Your task to perform on an android device: clear all cookies in the chrome app Image 0: 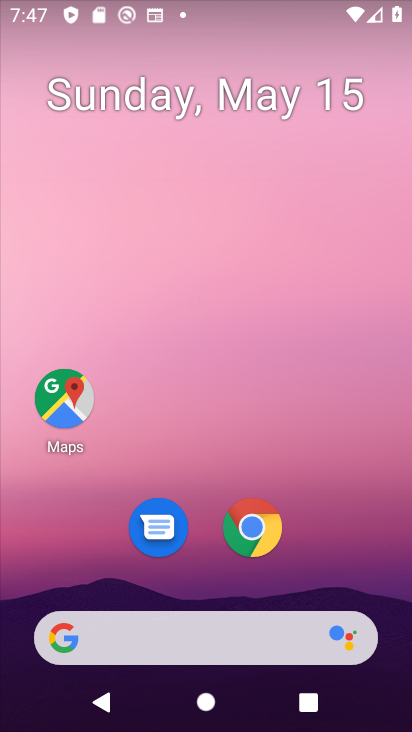
Step 0: press home button
Your task to perform on an android device: clear all cookies in the chrome app Image 1: 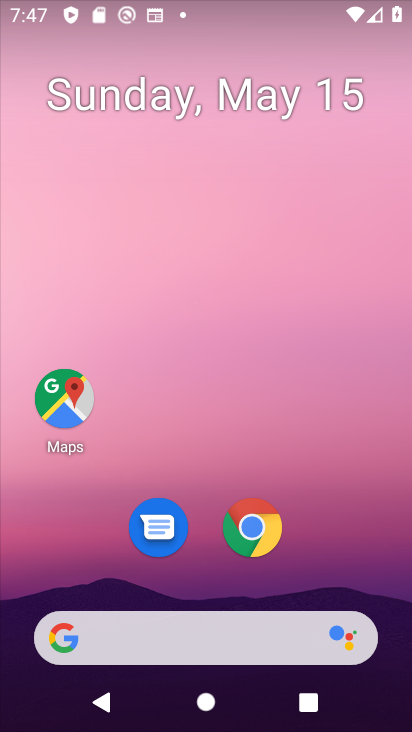
Step 1: click (247, 535)
Your task to perform on an android device: clear all cookies in the chrome app Image 2: 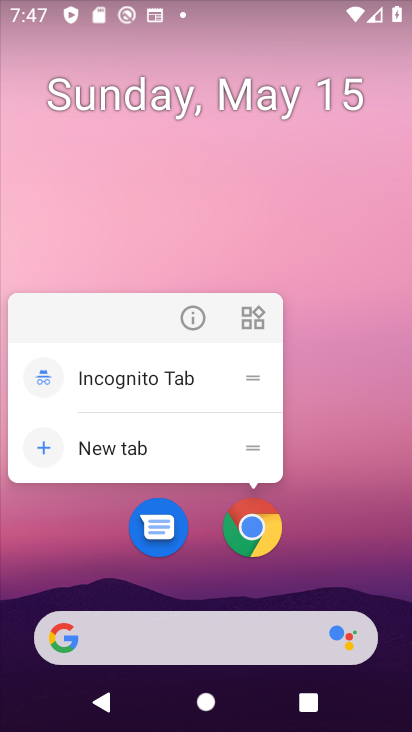
Step 2: click (254, 527)
Your task to perform on an android device: clear all cookies in the chrome app Image 3: 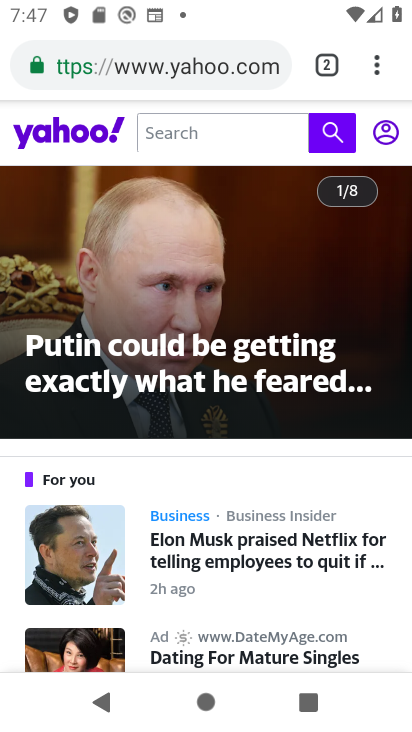
Step 3: drag from (375, 68) to (226, 580)
Your task to perform on an android device: clear all cookies in the chrome app Image 4: 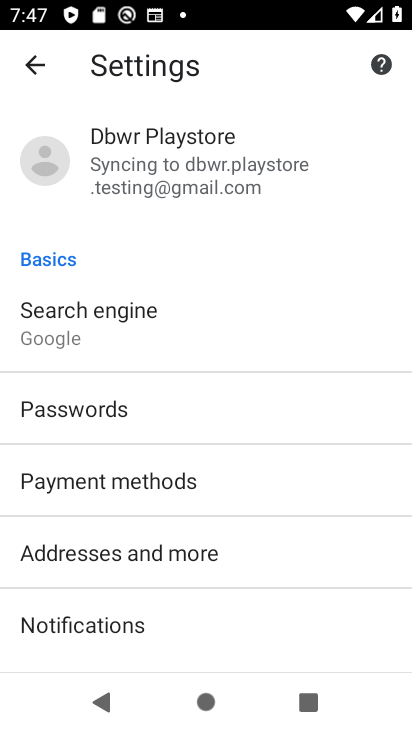
Step 4: drag from (226, 578) to (338, 105)
Your task to perform on an android device: clear all cookies in the chrome app Image 5: 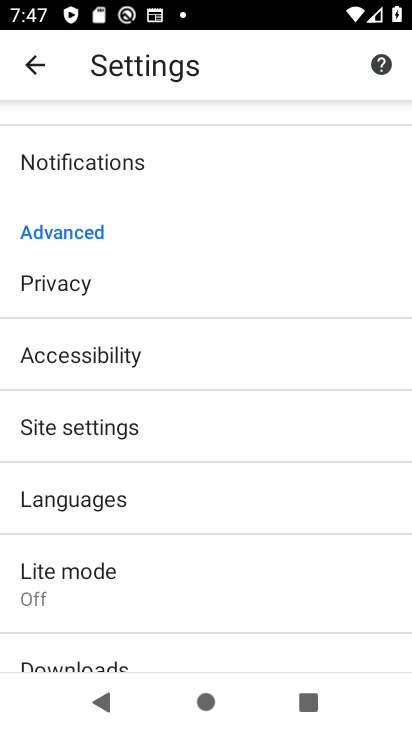
Step 5: click (52, 285)
Your task to perform on an android device: clear all cookies in the chrome app Image 6: 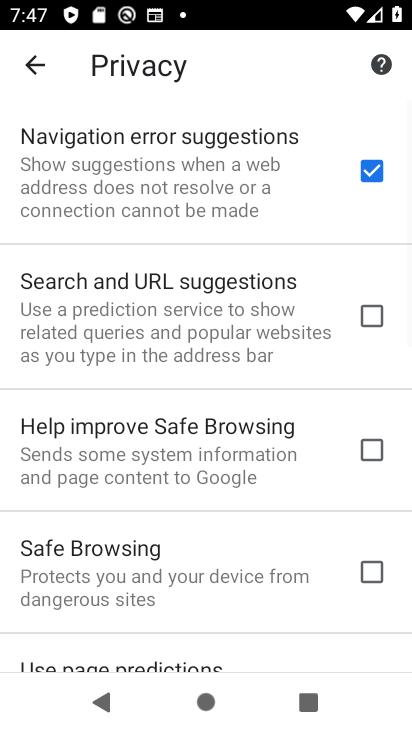
Step 6: drag from (130, 618) to (318, 90)
Your task to perform on an android device: clear all cookies in the chrome app Image 7: 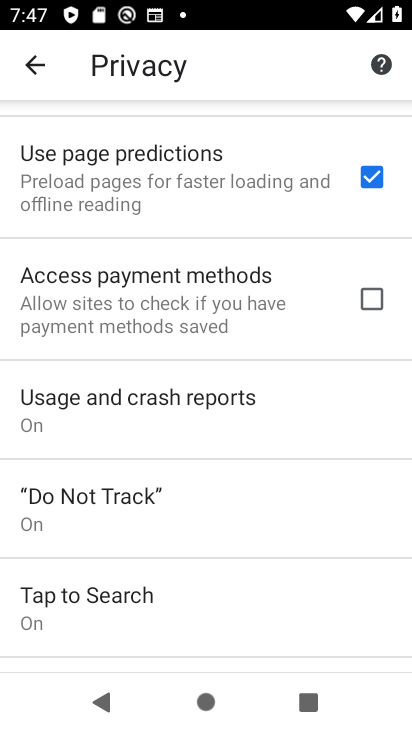
Step 7: drag from (198, 611) to (340, 84)
Your task to perform on an android device: clear all cookies in the chrome app Image 8: 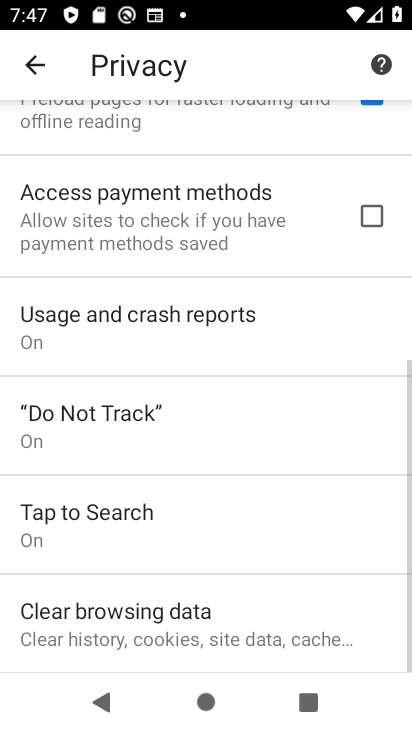
Step 8: click (149, 621)
Your task to perform on an android device: clear all cookies in the chrome app Image 9: 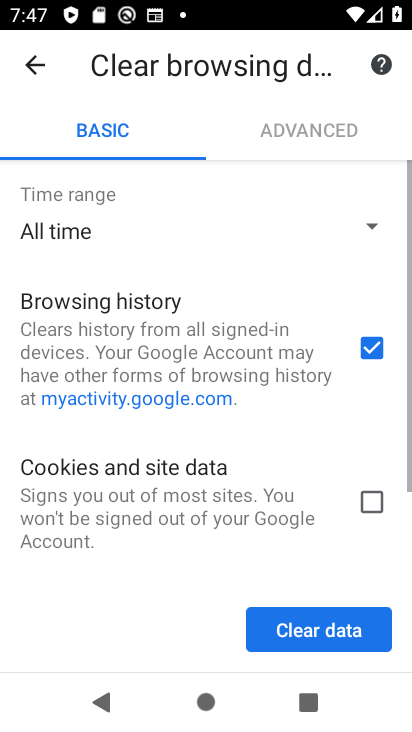
Step 9: click (367, 503)
Your task to perform on an android device: clear all cookies in the chrome app Image 10: 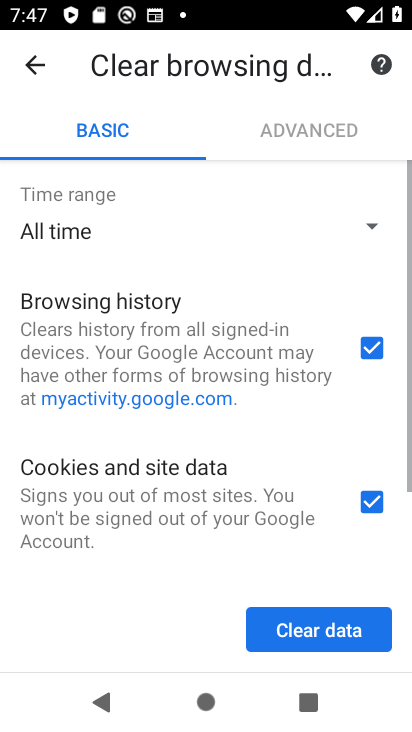
Step 10: click (373, 339)
Your task to perform on an android device: clear all cookies in the chrome app Image 11: 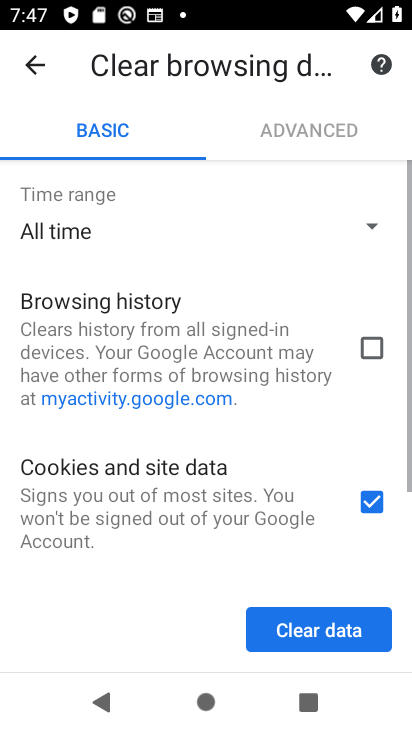
Step 11: drag from (258, 538) to (342, 238)
Your task to perform on an android device: clear all cookies in the chrome app Image 12: 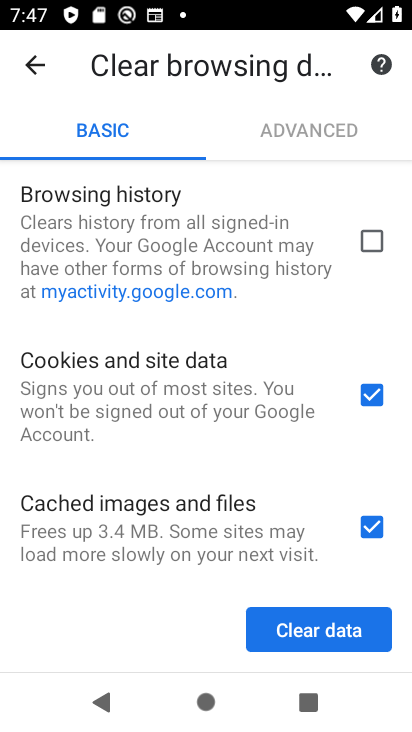
Step 12: click (373, 532)
Your task to perform on an android device: clear all cookies in the chrome app Image 13: 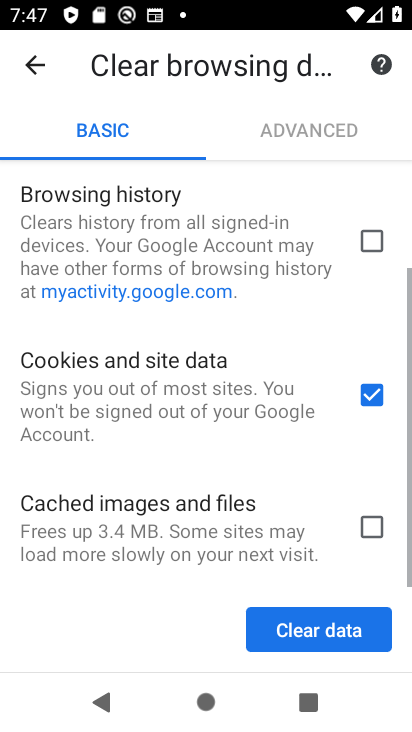
Step 13: click (314, 628)
Your task to perform on an android device: clear all cookies in the chrome app Image 14: 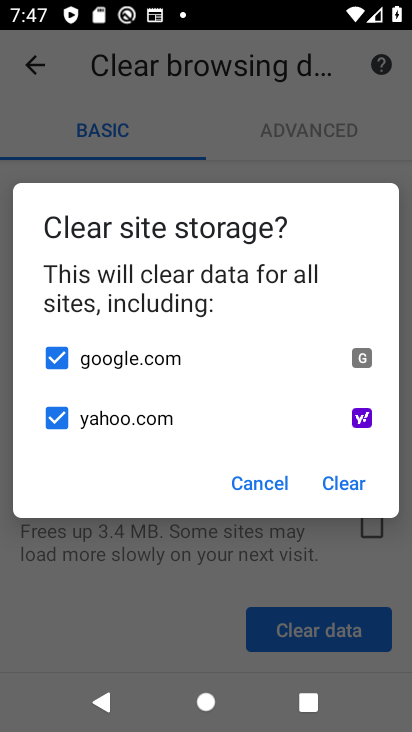
Step 14: click (360, 487)
Your task to perform on an android device: clear all cookies in the chrome app Image 15: 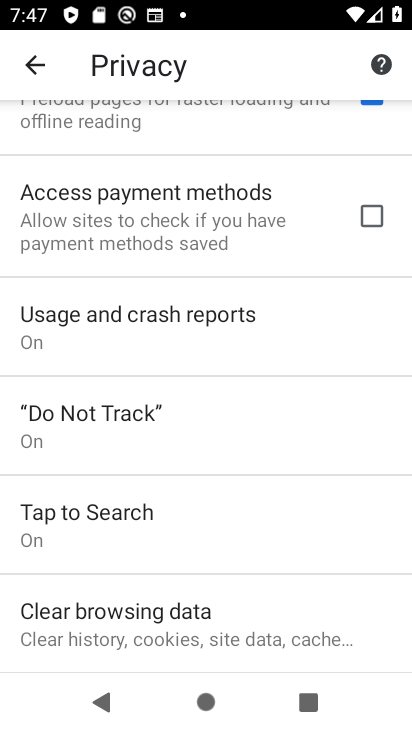
Step 15: task complete